Your task to perform on an android device: Open CNN.com Image 0: 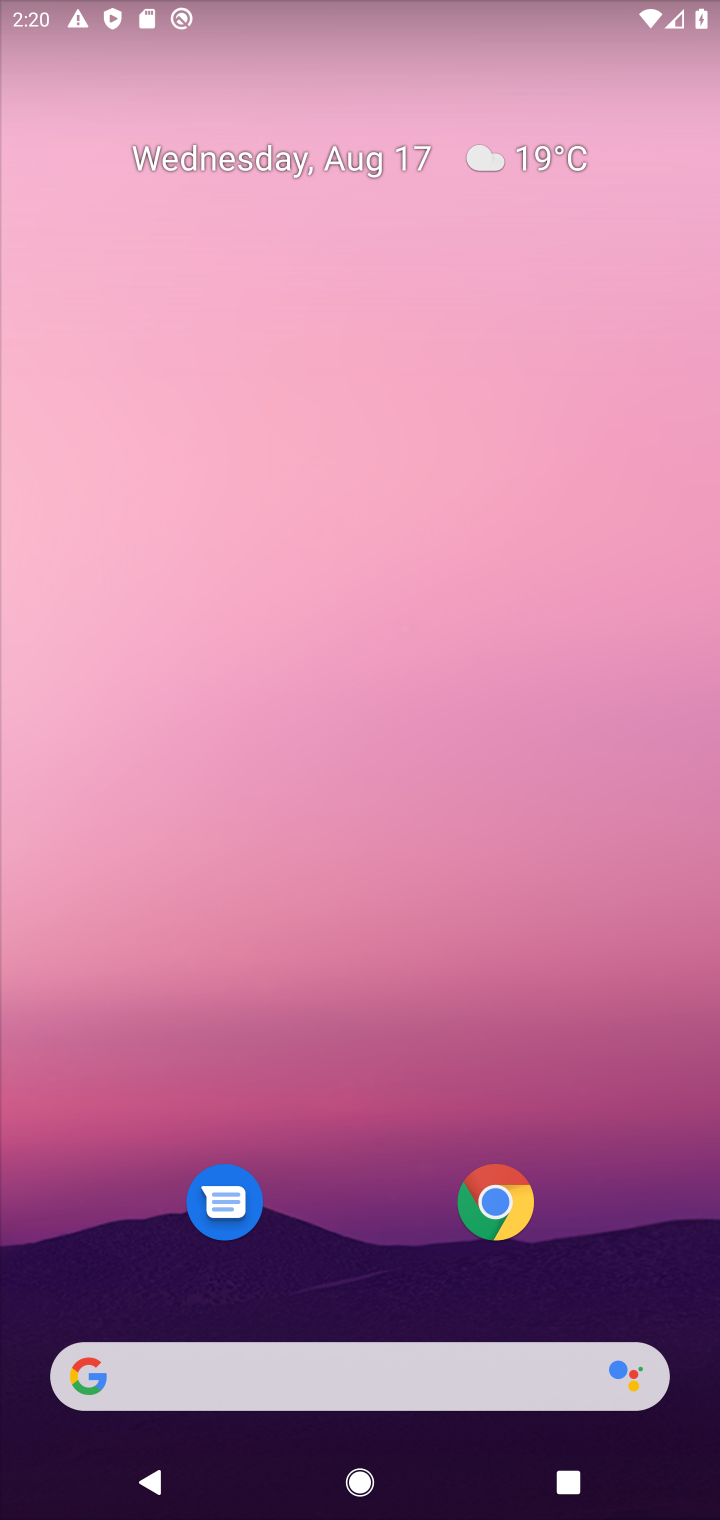
Step 0: click (487, 1227)
Your task to perform on an android device: Open CNN.com Image 1: 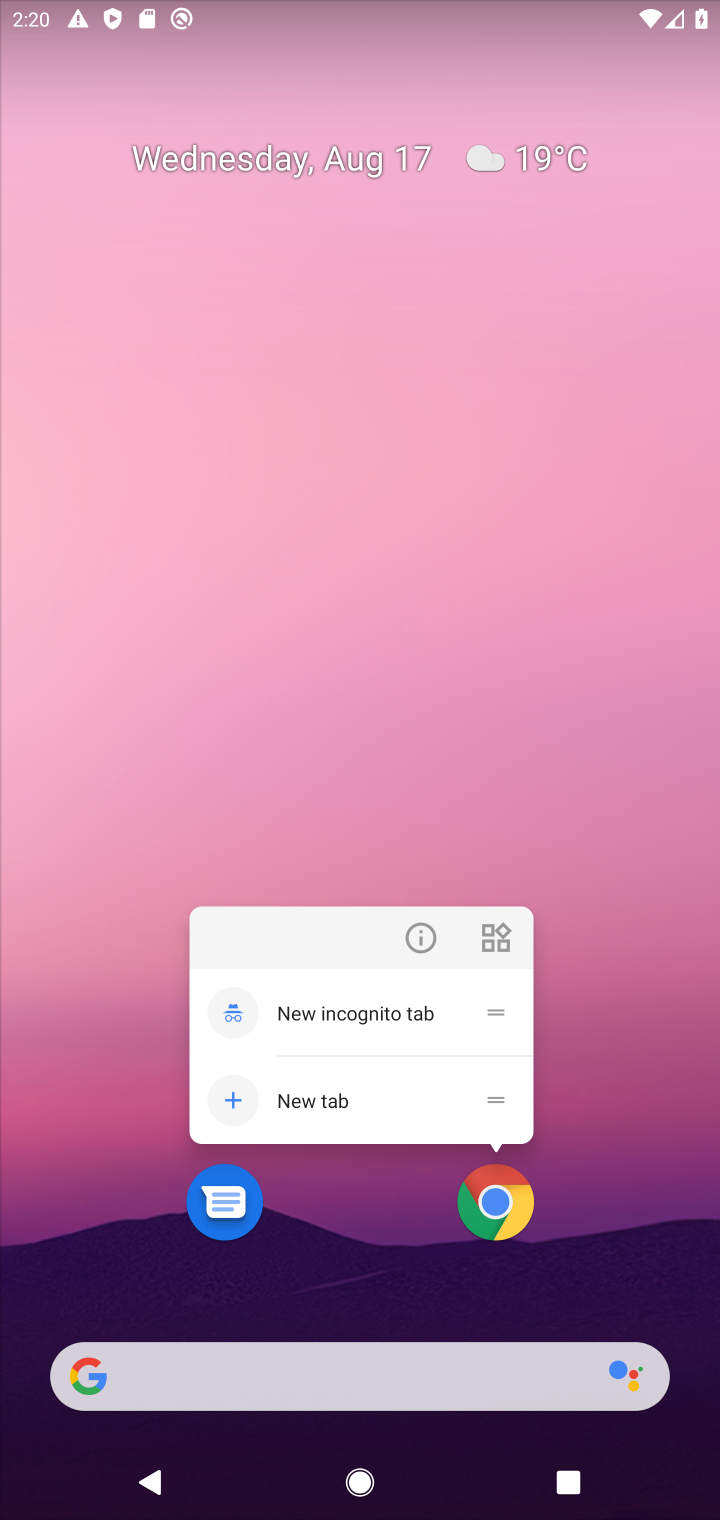
Step 1: click (487, 1227)
Your task to perform on an android device: Open CNN.com Image 2: 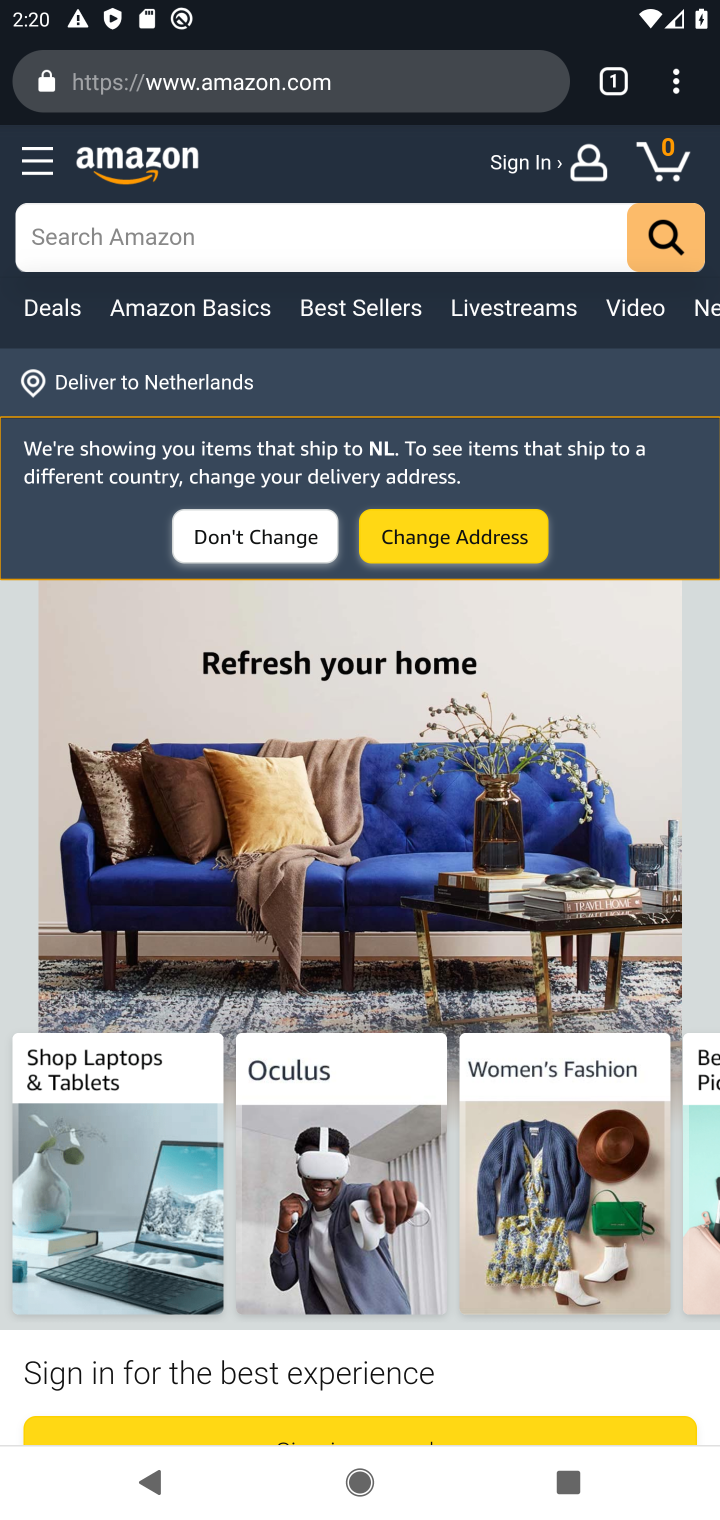
Step 2: click (268, 68)
Your task to perform on an android device: Open CNN.com Image 3: 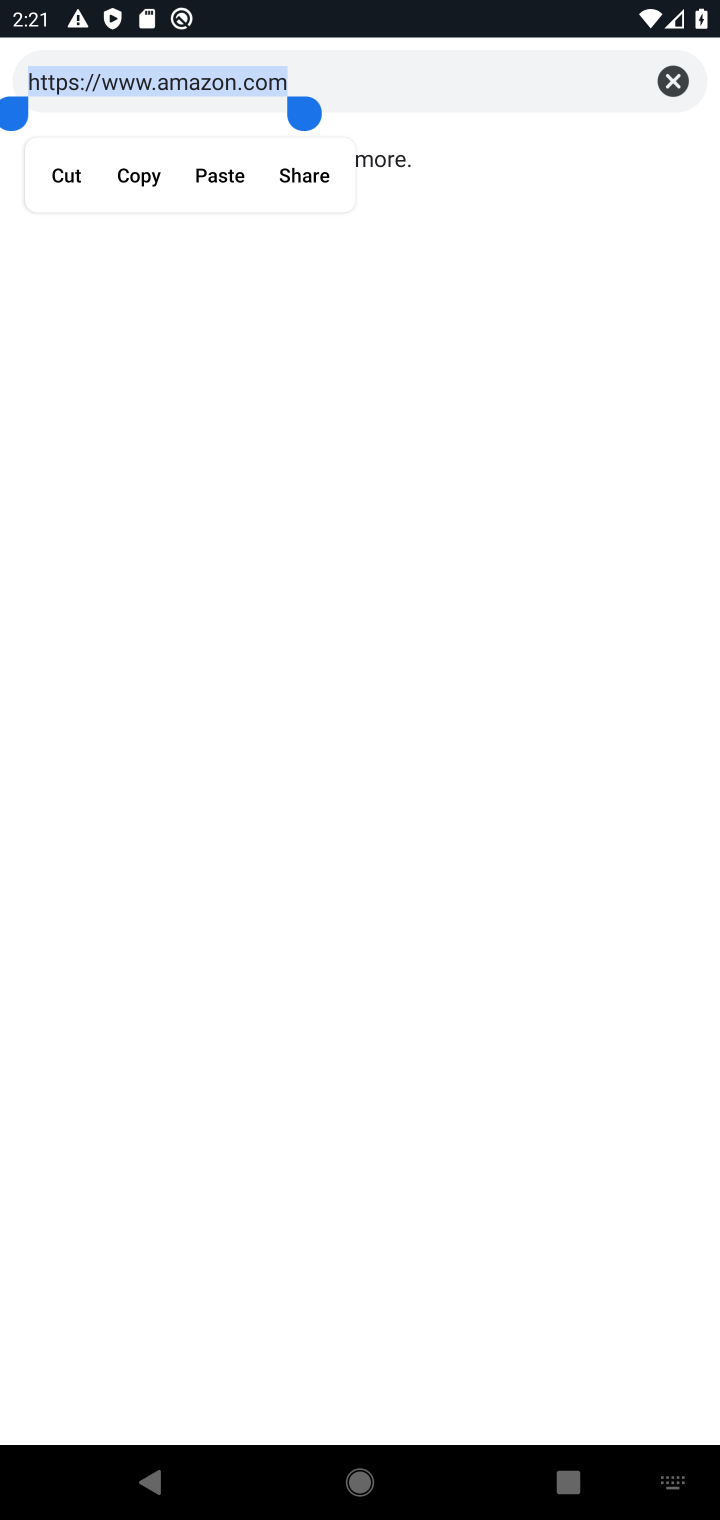
Step 3: type "CNN.com"
Your task to perform on an android device: Open CNN.com Image 4: 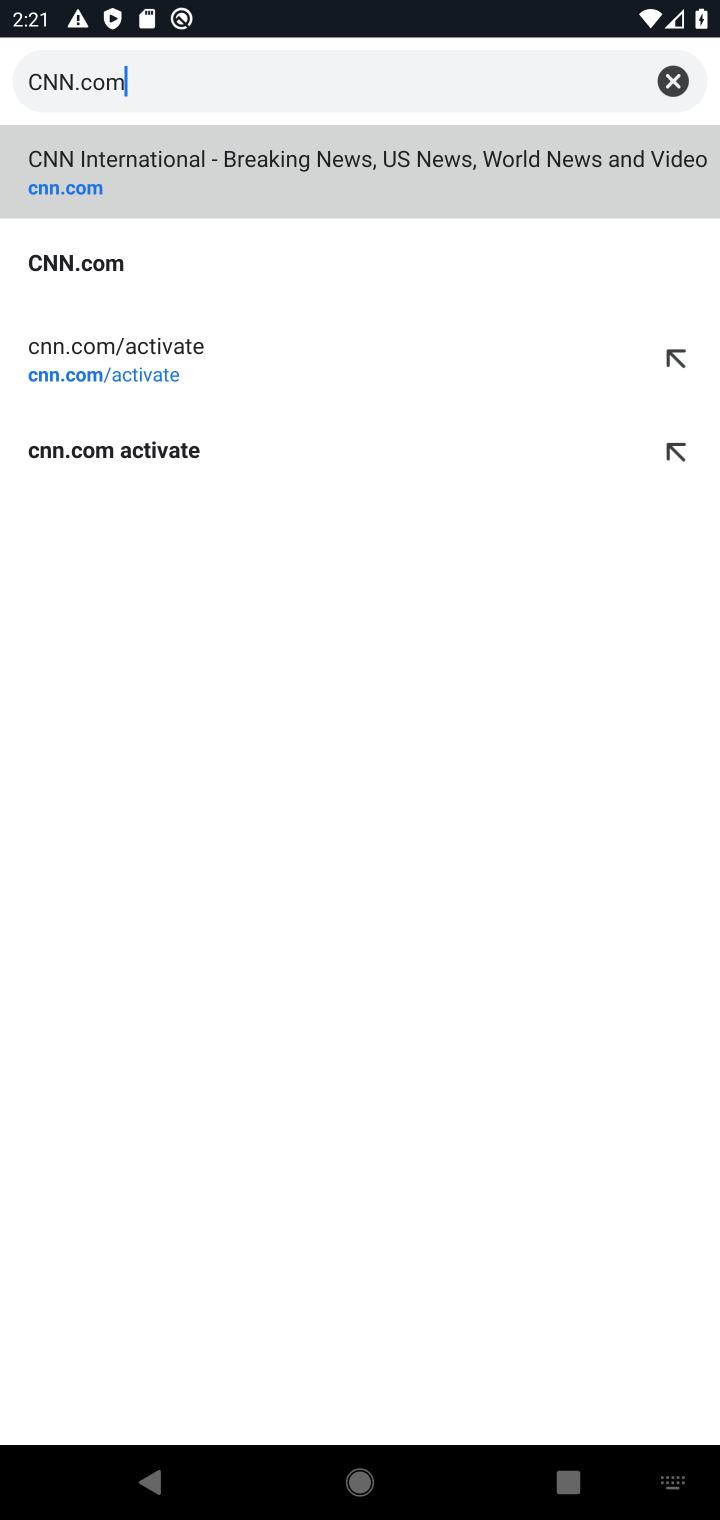
Step 4: click (246, 175)
Your task to perform on an android device: Open CNN.com Image 5: 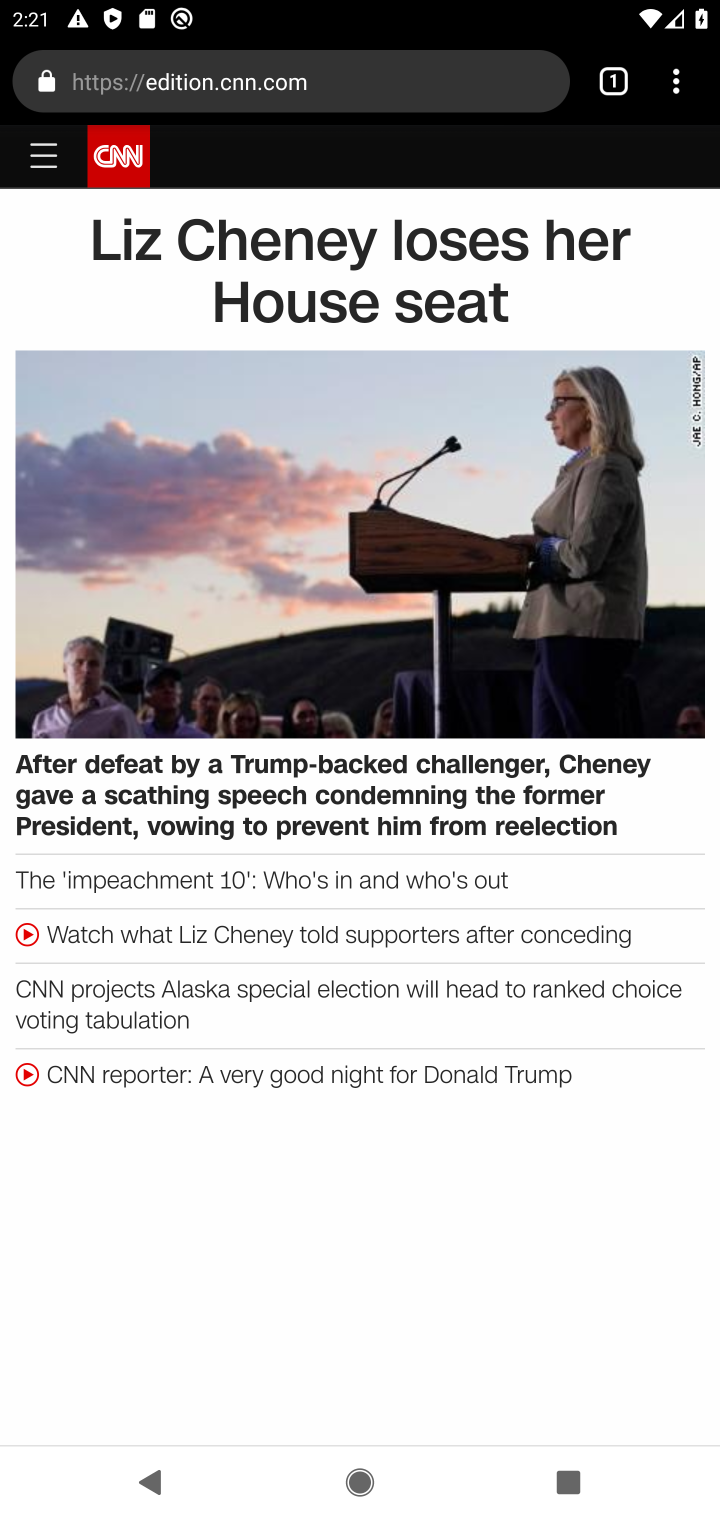
Step 5: task complete